Your task to perform on an android device: find photos in the google photos app Image 0: 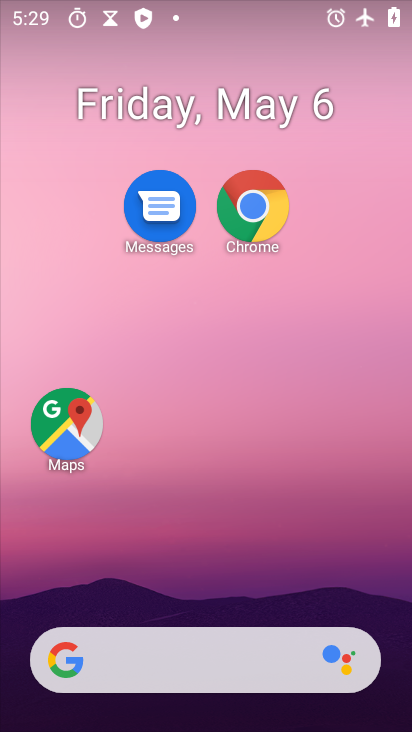
Step 0: drag from (167, 628) to (211, 302)
Your task to perform on an android device: find photos in the google photos app Image 1: 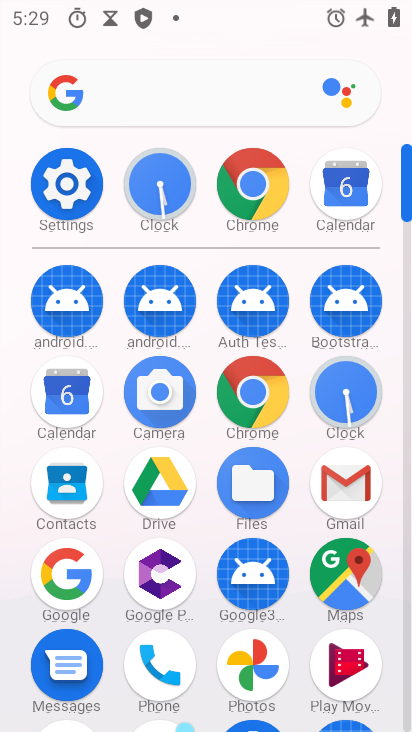
Step 1: click (244, 668)
Your task to perform on an android device: find photos in the google photos app Image 2: 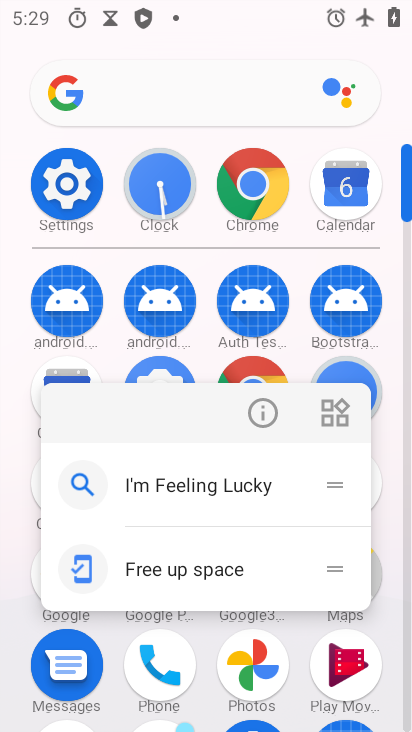
Step 2: click (252, 686)
Your task to perform on an android device: find photos in the google photos app Image 3: 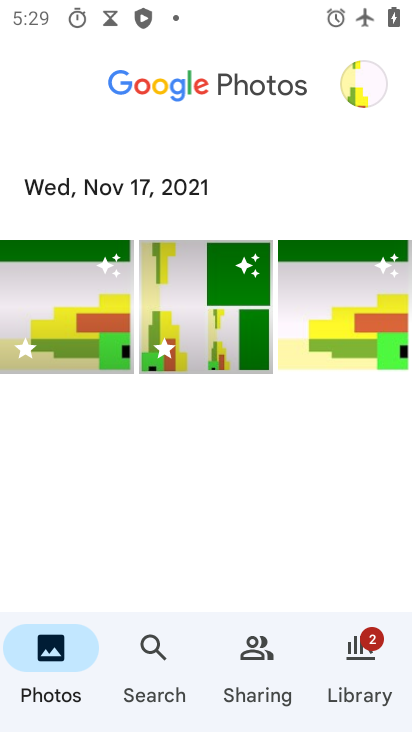
Step 3: click (159, 658)
Your task to perform on an android device: find photos in the google photos app Image 4: 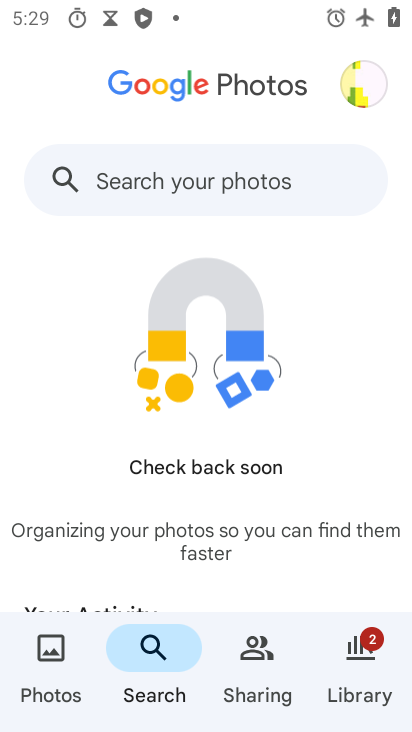
Step 4: click (194, 175)
Your task to perform on an android device: find photos in the google photos app Image 5: 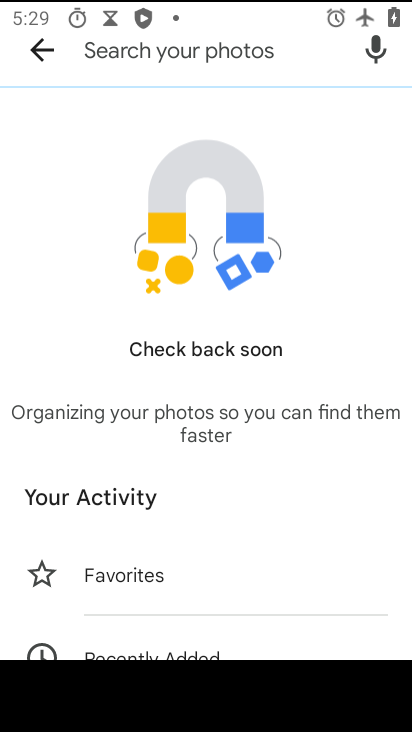
Step 5: type "album 09"
Your task to perform on an android device: find photos in the google photos app Image 6: 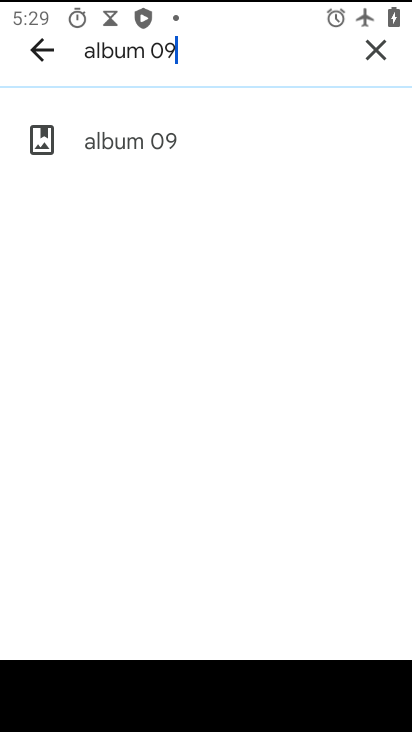
Step 6: click (168, 161)
Your task to perform on an android device: find photos in the google photos app Image 7: 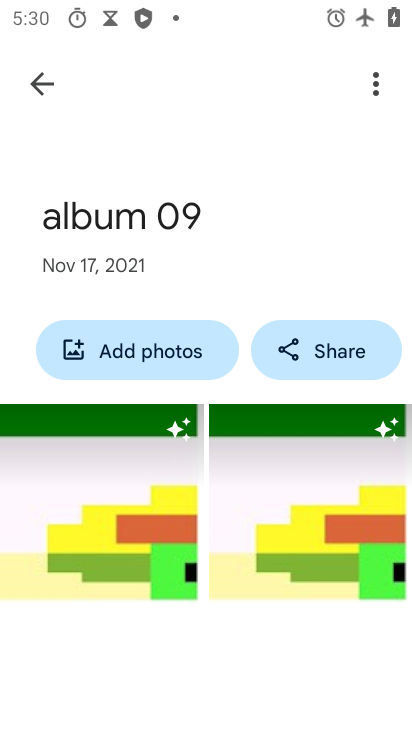
Step 7: task complete